Your task to perform on an android device: turn off translation in the chrome app Image 0: 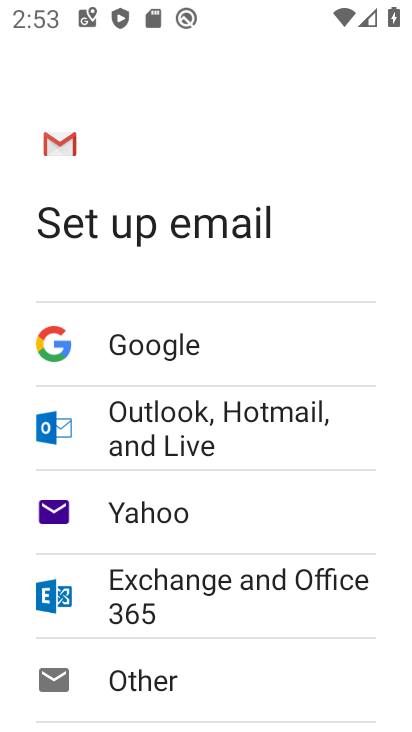
Step 0: press back button
Your task to perform on an android device: turn off translation in the chrome app Image 1: 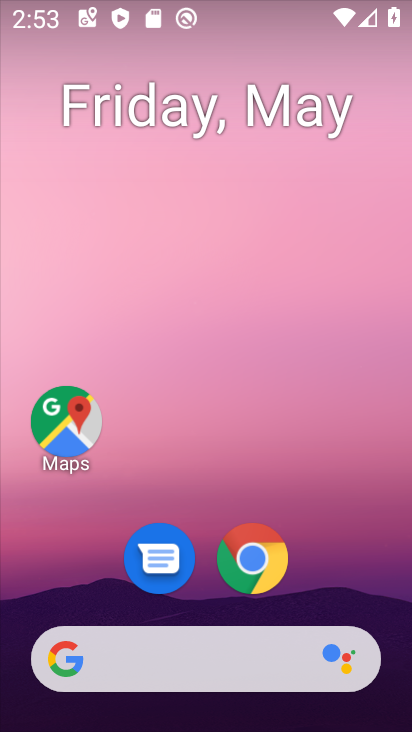
Step 1: click (245, 558)
Your task to perform on an android device: turn off translation in the chrome app Image 2: 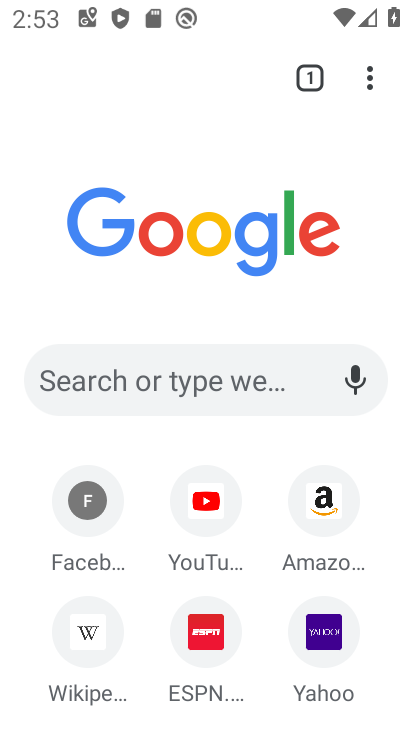
Step 2: drag from (377, 94) to (228, 620)
Your task to perform on an android device: turn off translation in the chrome app Image 3: 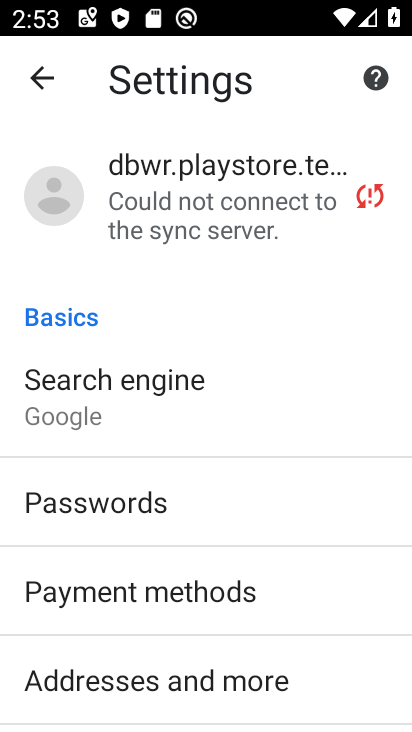
Step 3: drag from (160, 657) to (253, 318)
Your task to perform on an android device: turn off translation in the chrome app Image 4: 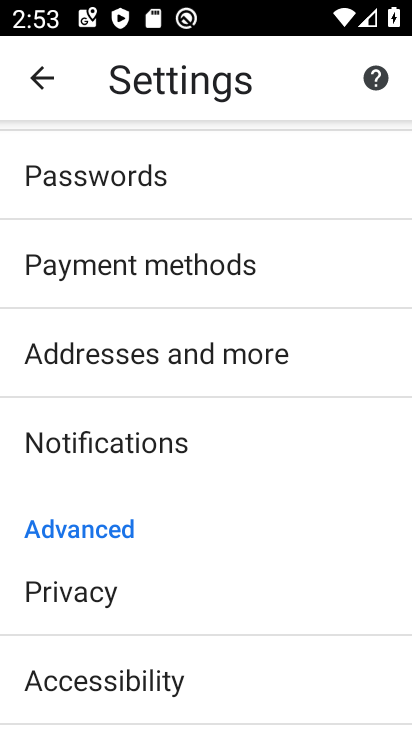
Step 4: drag from (163, 664) to (248, 344)
Your task to perform on an android device: turn off translation in the chrome app Image 5: 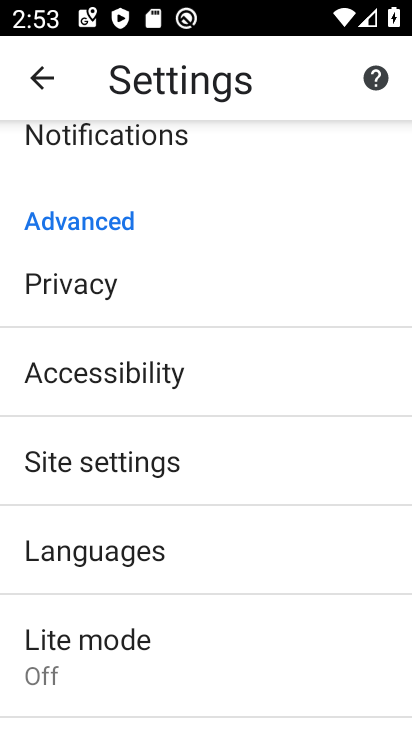
Step 5: click (243, 561)
Your task to perform on an android device: turn off translation in the chrome app Image 6: 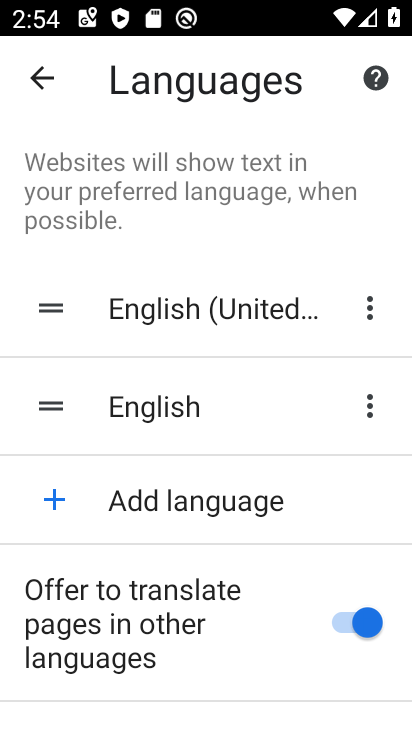
Step 6: click (343, 631)
Your task to perform on an android device: turn off translation in the chrome app Image 7: 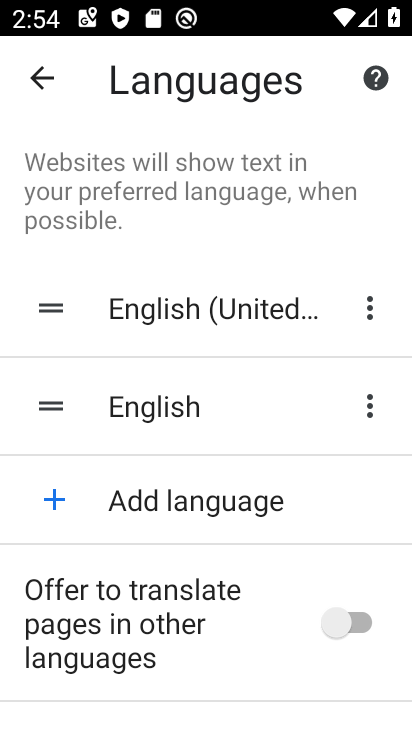
Step 7: task complete